Your task to perform on an android device: toggle translation in the chrome app Image 0: 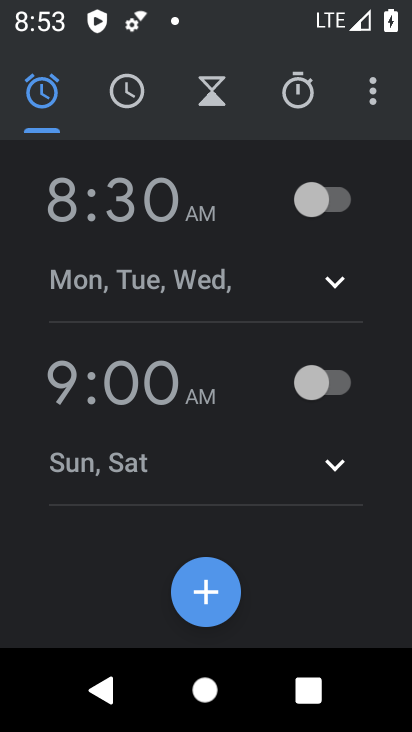
Step 0: press home button
Your task to perform on an android device: toggle translation in the chrome app Image 1: 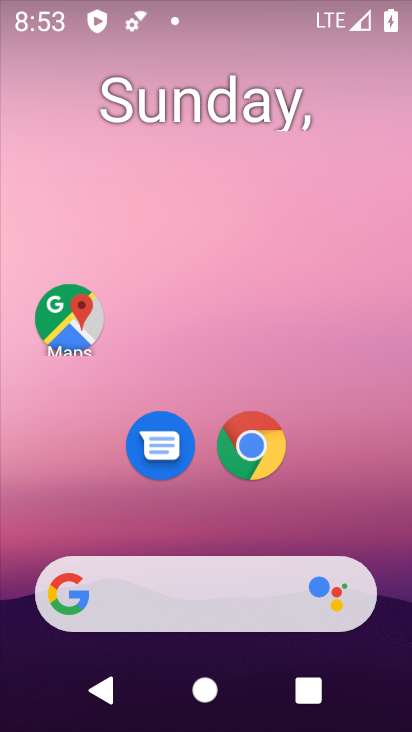
Step 1: click (264, 462)
Your task to perform on an android device: toggle translation in the chrome app Image 2: 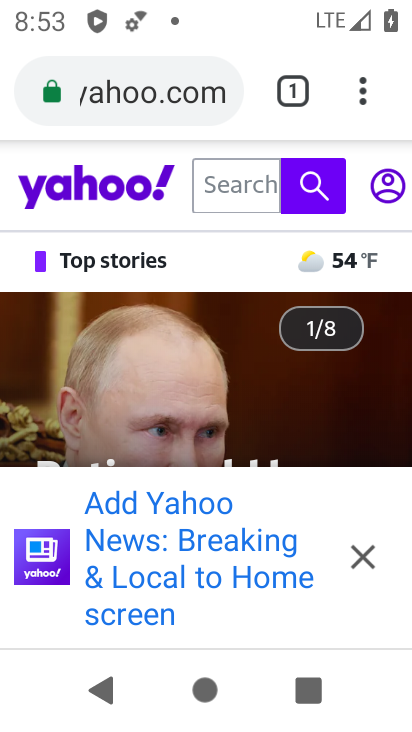
Step 2: drag from (357, 88) to (147, 469)
Your task to perform on an android device: toggle translation in the chrome app Image 3: 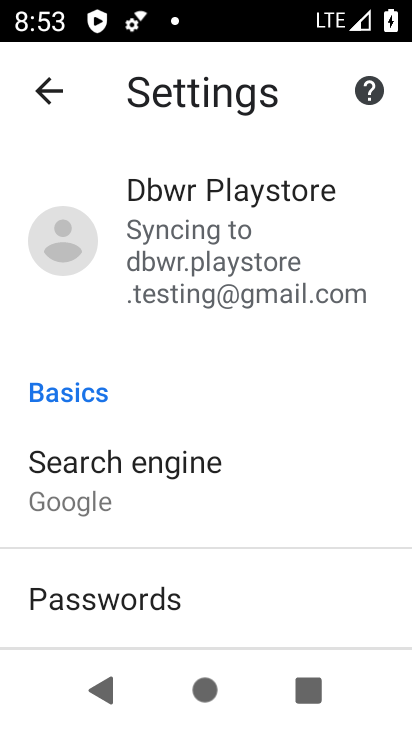
Step 3: drag from (197, 549) to (146, 259)
Your task to perform on an android device: toggle translation in the chrome app Image 4: 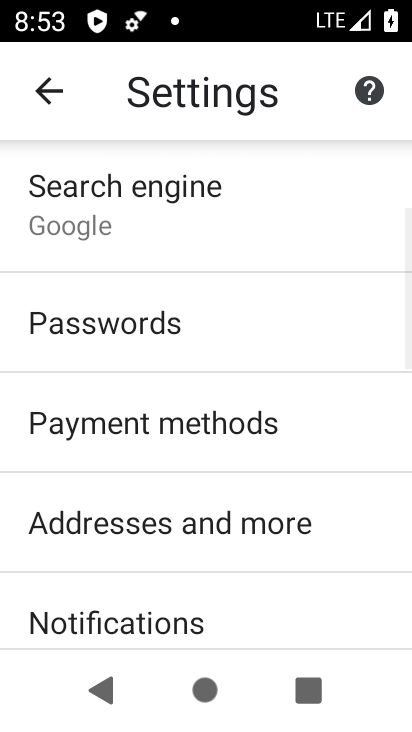
Step 4: drag from (196, 529) to (200, 173)
Your task to perform on an android device: toggle translation in the chrome app Image 5: 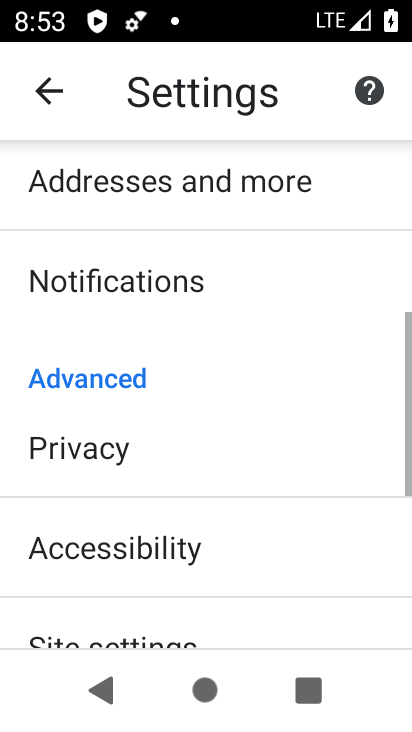
Step 5: drag from (138, 558) to (163, 241)
Your task to perform on an android device: toggle translation in the chrome app Image 6: 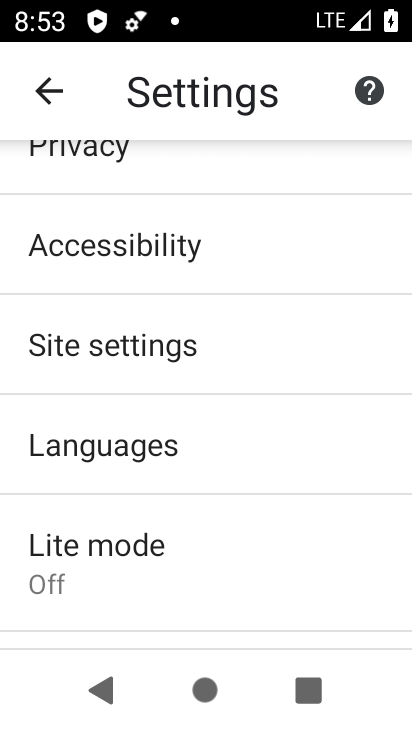
Step 6: click (33, 434)
Your task to perform on an android device: toggle translation in the chrome app Image 7: 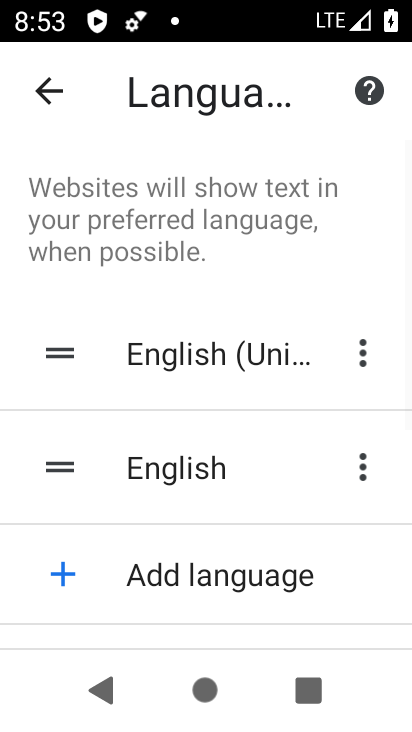
Step 7: drag from (189, 576) to (211, 258)
Your task to perform on an android device: toggle translation in the chrome app Image 8: 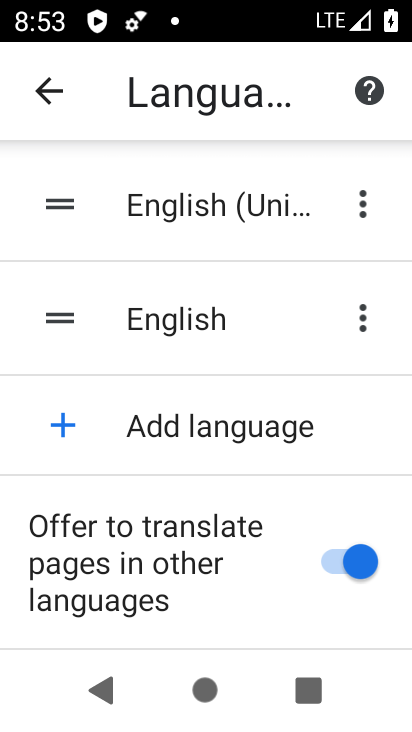
Step 8: click (335, 554)
Your task to perform on an android device: toggle translation in the chrome app Image 9: 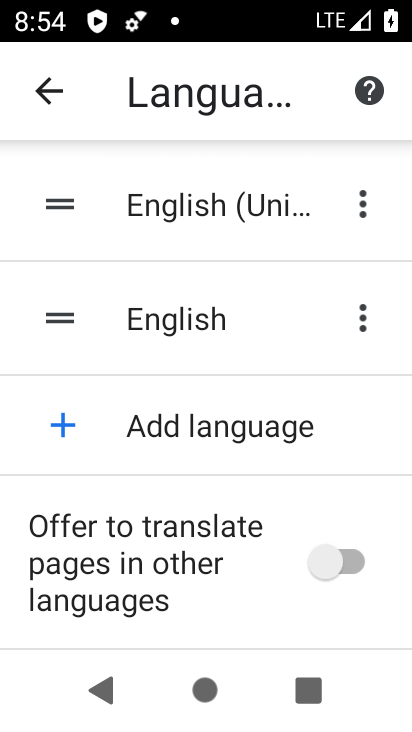
Step 9: task complete